Your task to perform on an android device: Open privacy settings Image 0: 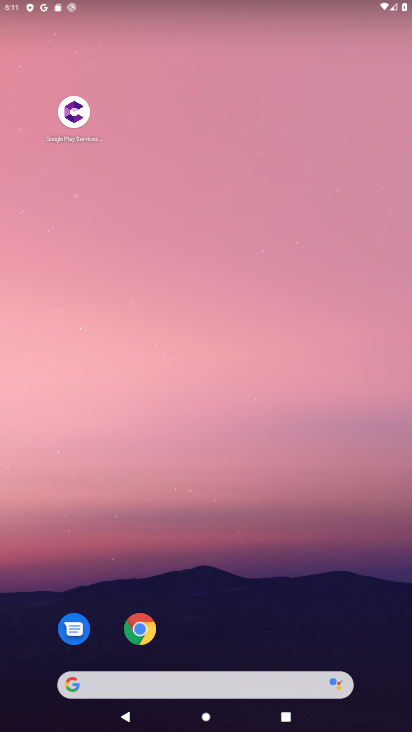
Step 0: drag from (235, 668) to (316, 8)
Your task to perform on an android device: Open privacy settings Image 1: 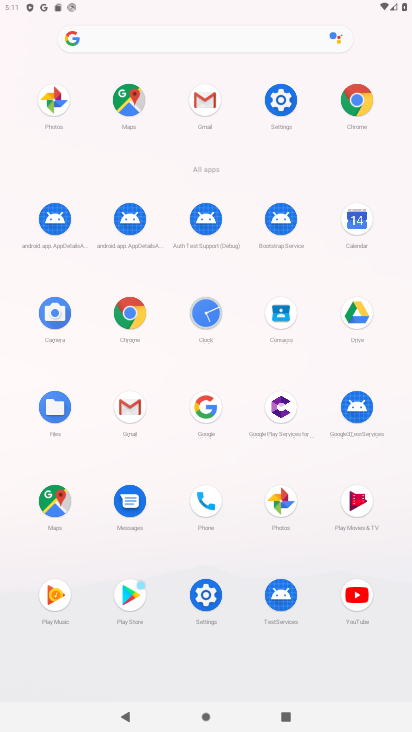
Step 1: click (285, 94)
Your task to perform on an android device: Open privacy settings Image 2: 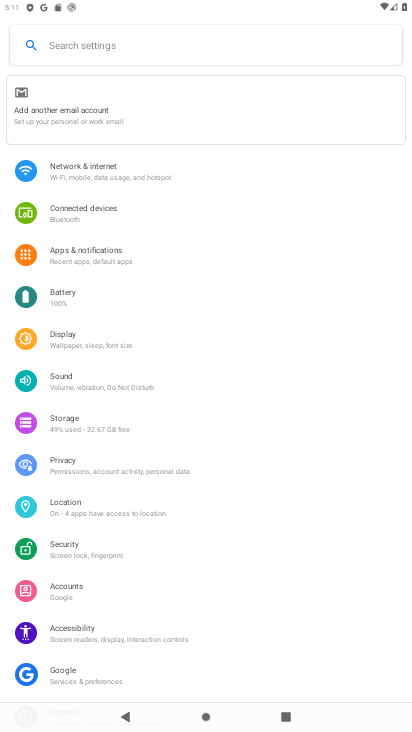
Step 2: click (101, 459)
Your task to perform on an android device: Open privacy settings Image 3: 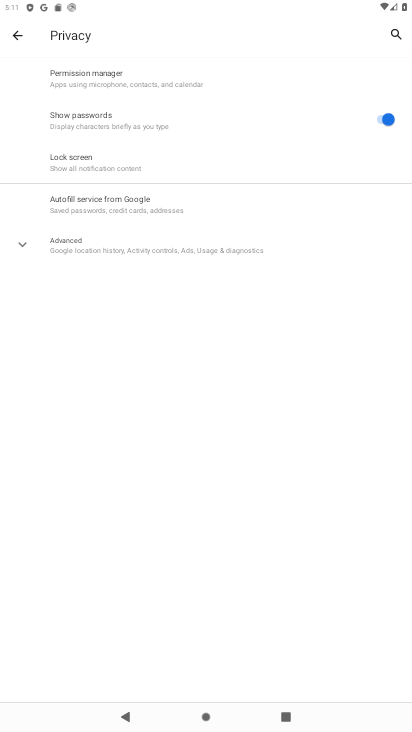
Step 3: task complete